Your task to perform on an android device: What's the weather? Image 0: 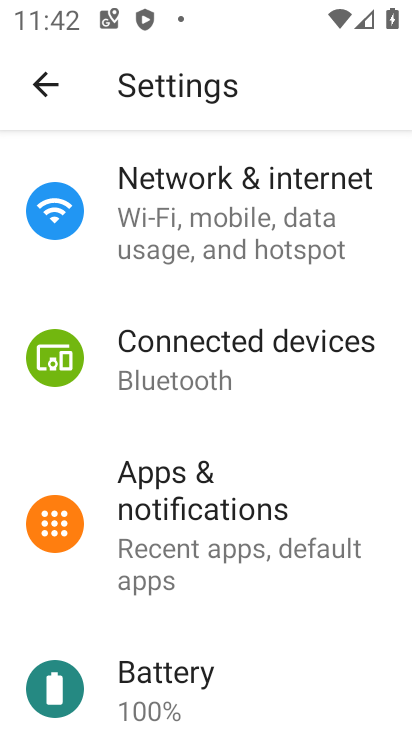
Step 0: press home button
Your task to perform on an android device: What's the weather? Image 1: 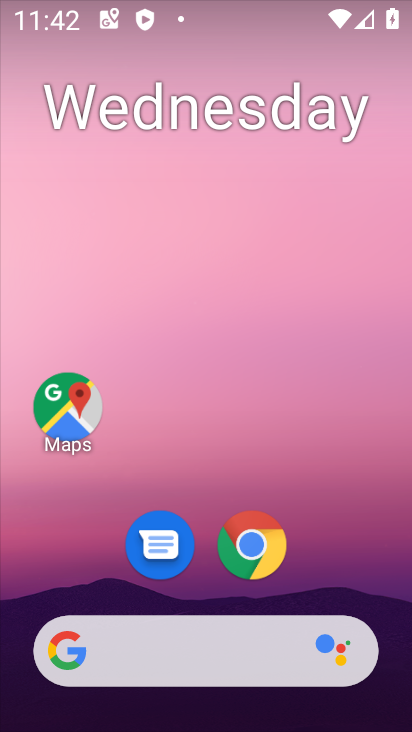
Step 1: click (231, 550)
Your task to perform on an android device: What's the weather? Image 2: 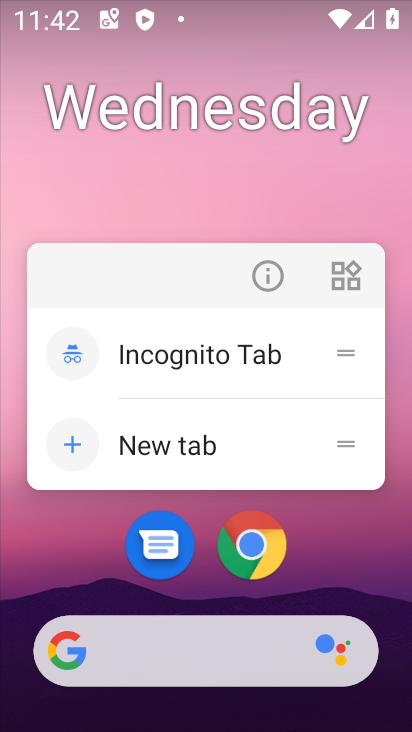
Step 2: click (244, 549)
Your task to perform on an android device: What's the weather? Image 3: 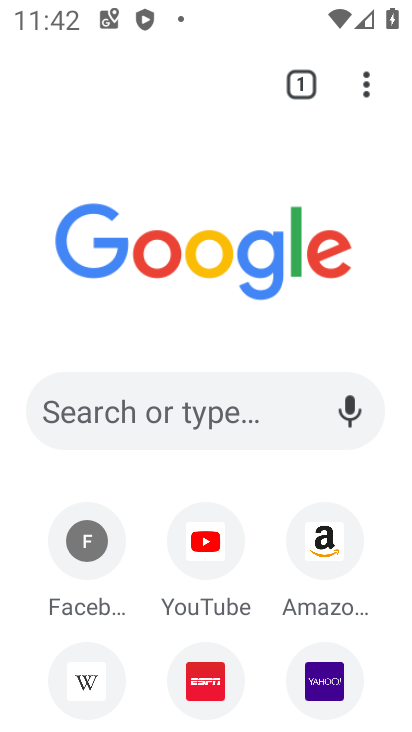
Step 3: click (88, 423)
Your task to perform on an android device: What's the weather? Image 4: 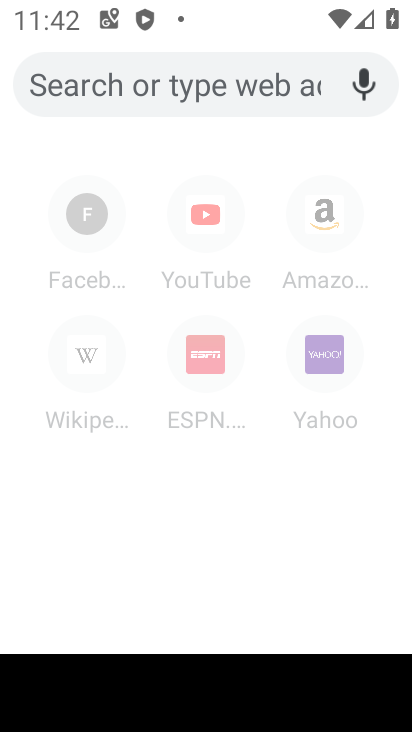
Step 4: type "what's the weather?"
Your task to perform on an android device: What's the weather? Image 5: 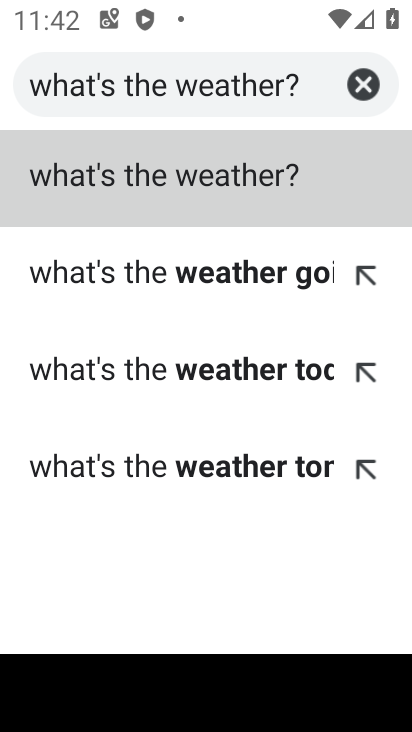
Step 5: click (117, 201)
Your task to perform on an android device: What's the weather? Image 6: 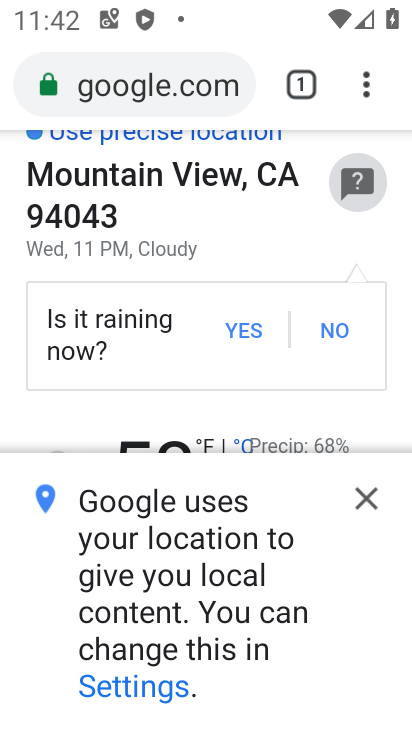
Step 6: task complete